Your task to perform on an android device: Go to location settings Image 0: 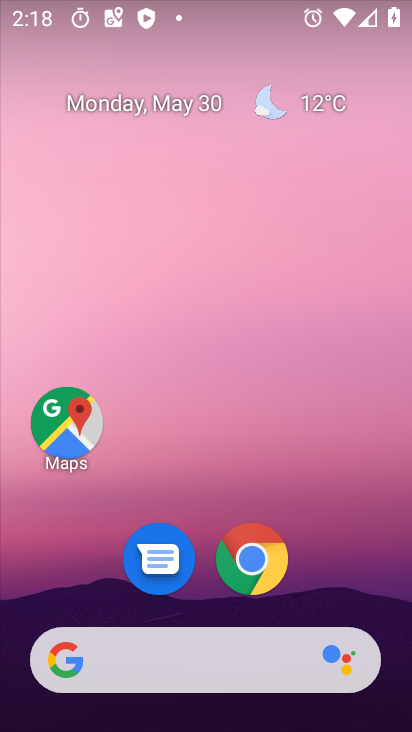
Step 0: drag from (216, 459) to (236, 47)
Your task to perform on an android device: Go to location settings Image 1: 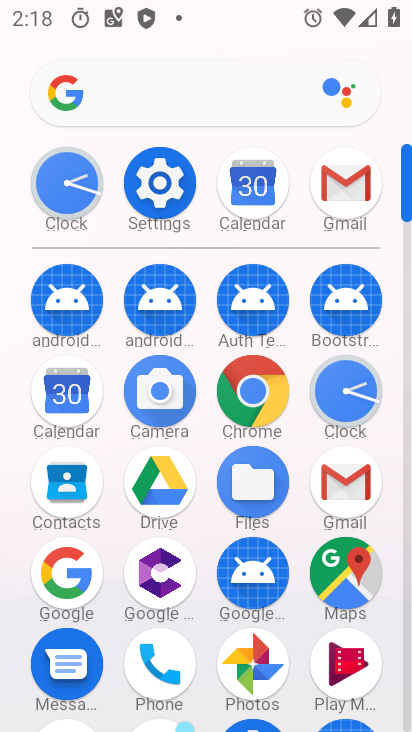
Step 1: click (157, 184)
Your task to perform on an android device: Go to location settings Image 2: 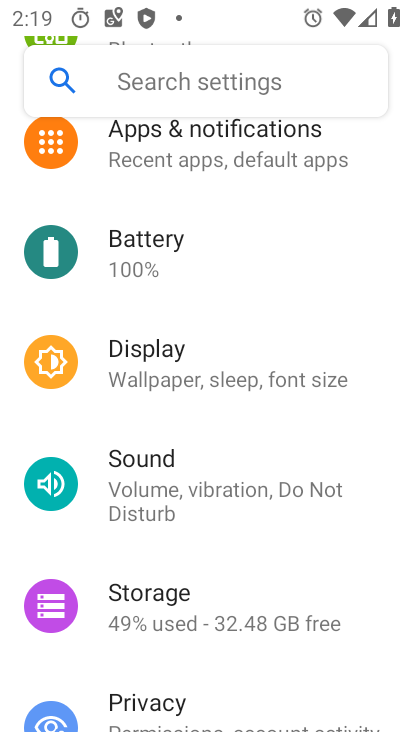
Step 2: drag from (199, 642) to (227, 162)
Your task to perform on an android device: Go to location settings Image 3: 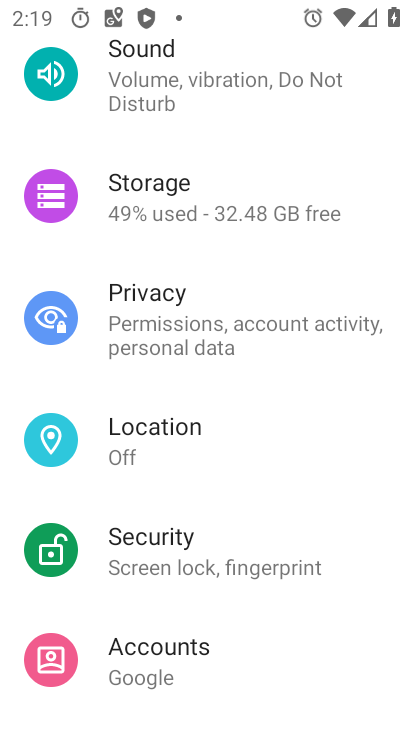
Step 3: click (166, 433)
Your task to perform on an android device: Go to location settings Image 4: 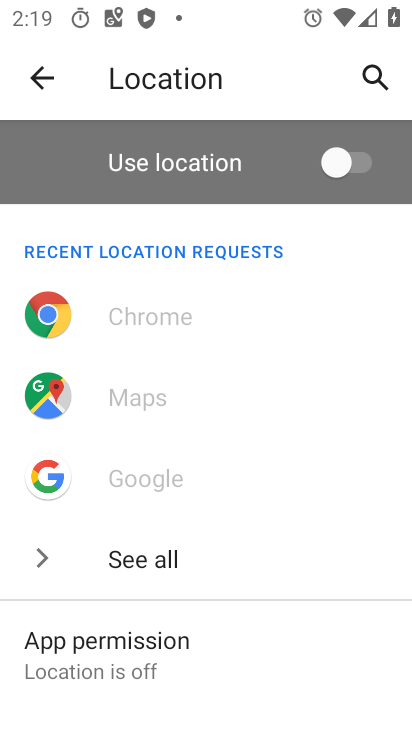
Step 4: task complete